Your task to perform on an android device: Open maps Image 0: 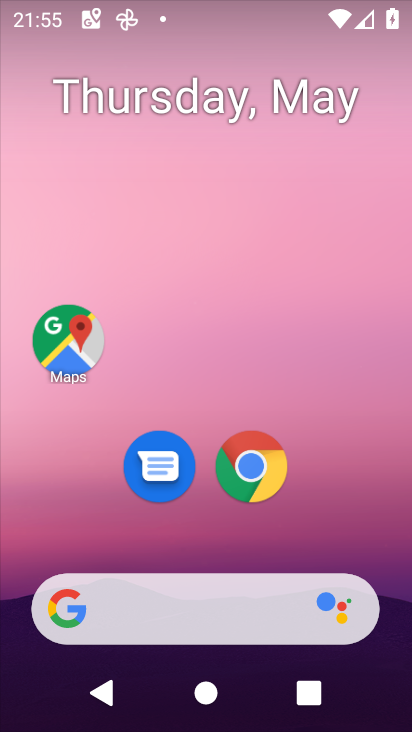
Step 0: click (85, 359)
Your task to perform on an android device: Open maps Image 1: 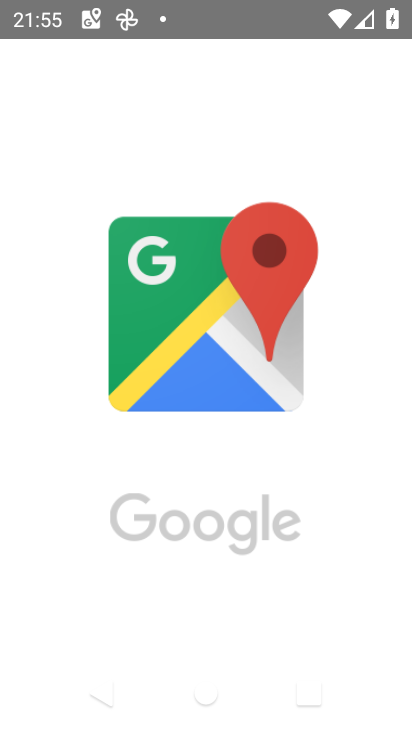
Step 1: task complete